Your task to perform on an android device: Open calendar and show me the first week of next month Image 0: 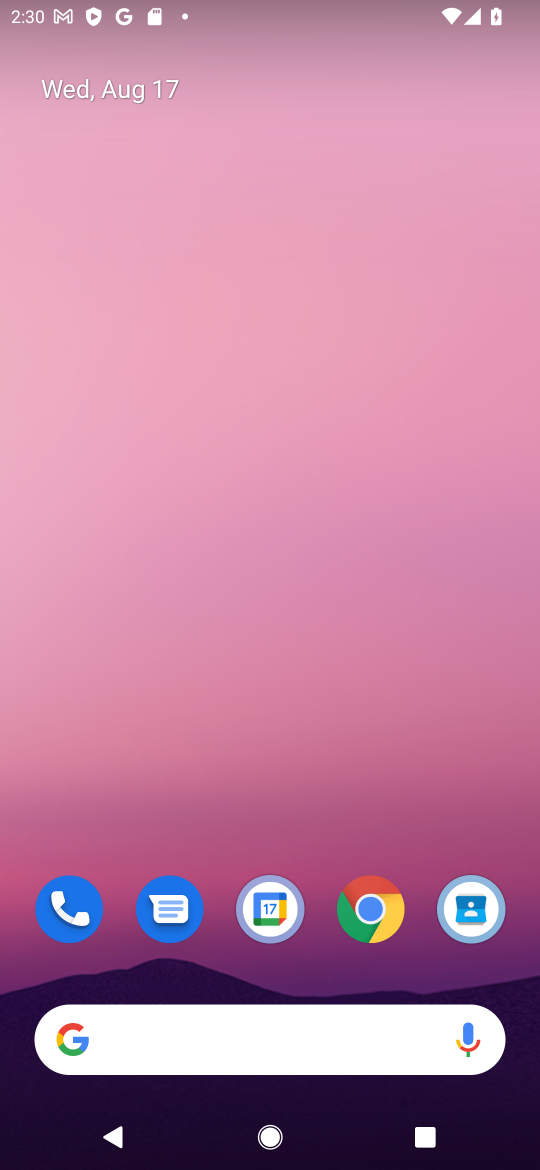
Step 0: drag from (262, 579) to (237, 117)
Your task to perform on an android device: Open calendar and show me the first week of next month Image 1: 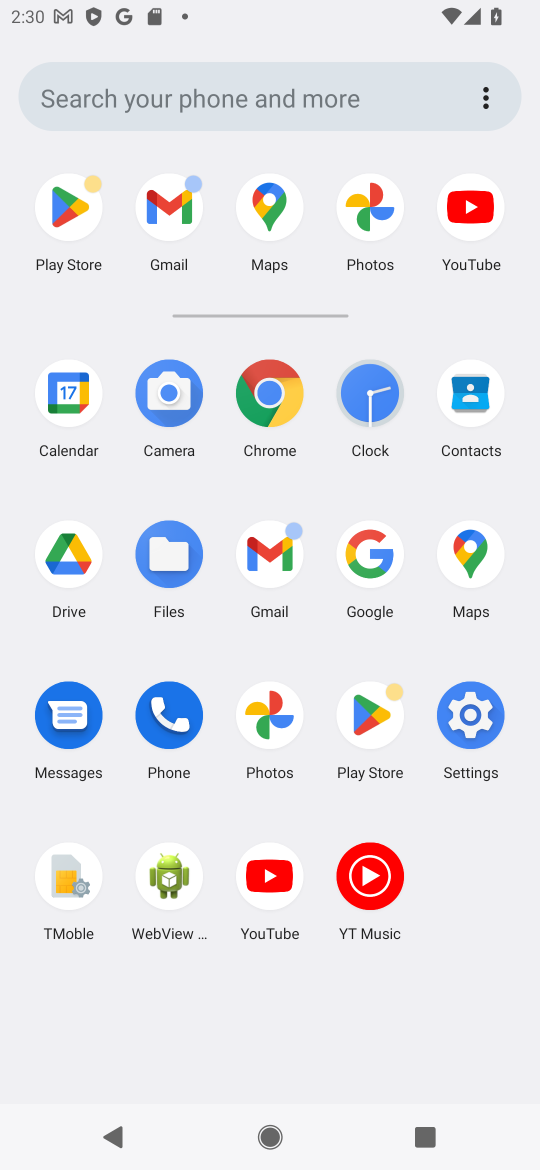
Step 1: task complete